Your task to perform on an android device: open wifi settings Image 0: 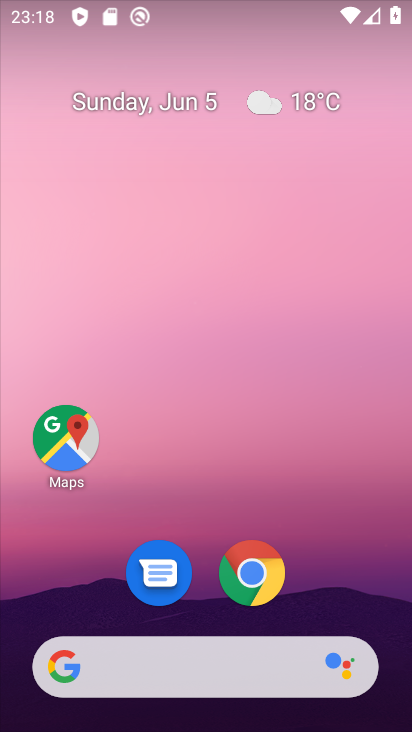
Step 0: drag from (212, 689) to (198, 252)
Your task to perform on an android device: open wifi settings Image 1: 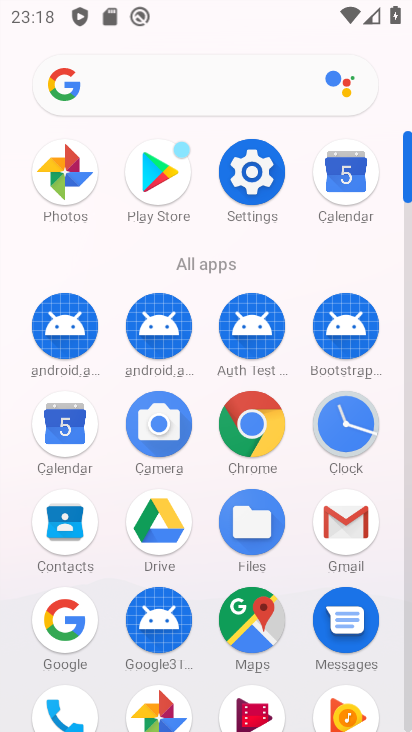
Step 1: click (264, 179)
Your task to perform on an android device: open wifi settings Image 2: 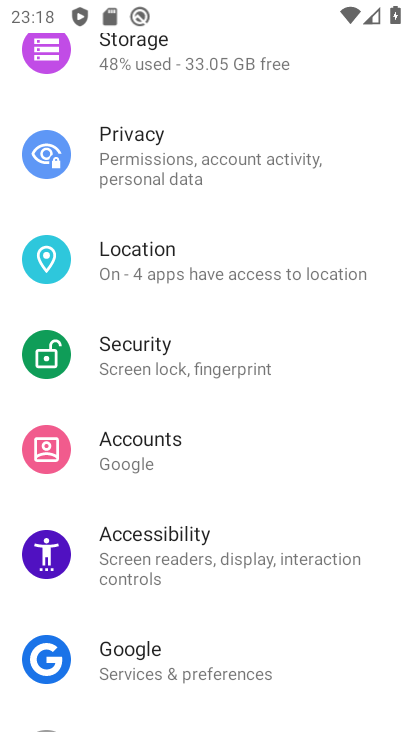
Step 2: drag from (136, 148) to (2, 346)
Your task to perform on an android device: open wifi settings Image 3: 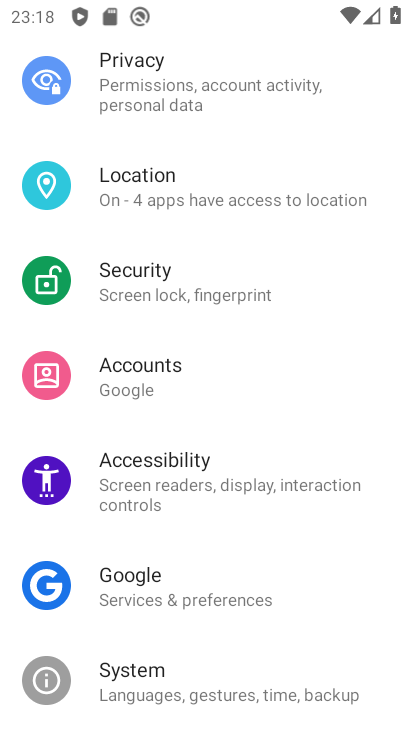
Step 3: drag from (137, 234) to (44, 610)
Your task to perform on an android device: open wifi settings Image 4: 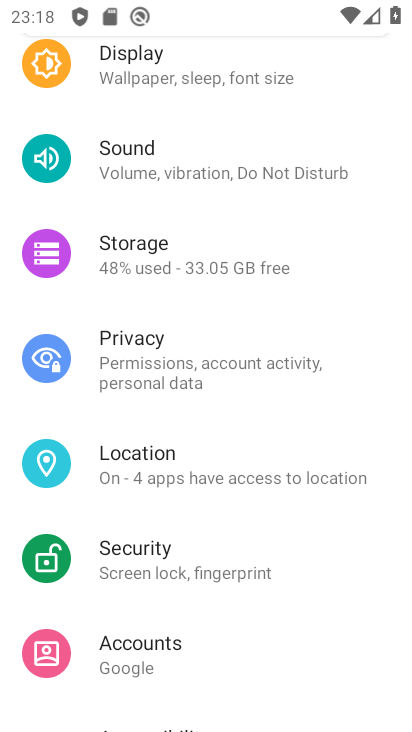
Step 4: drag from (172, 262) to (77, 718)
Your task to perform on an android device: open wifi settings Image 5: 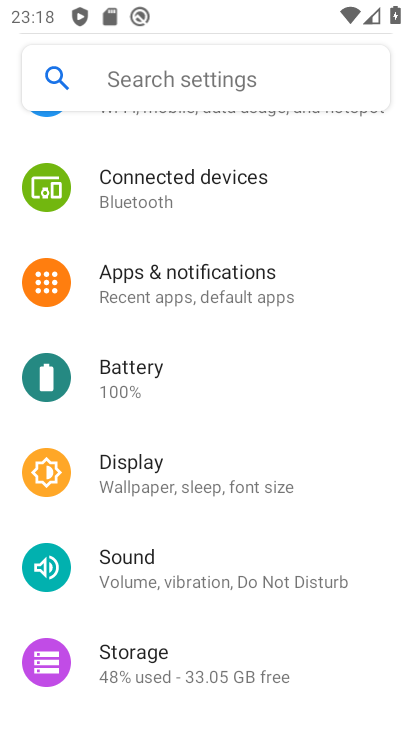
Step 5: drag from (194, 362) to (315, 704)
Your task to perform on an android device: open wifi settings Image 6: 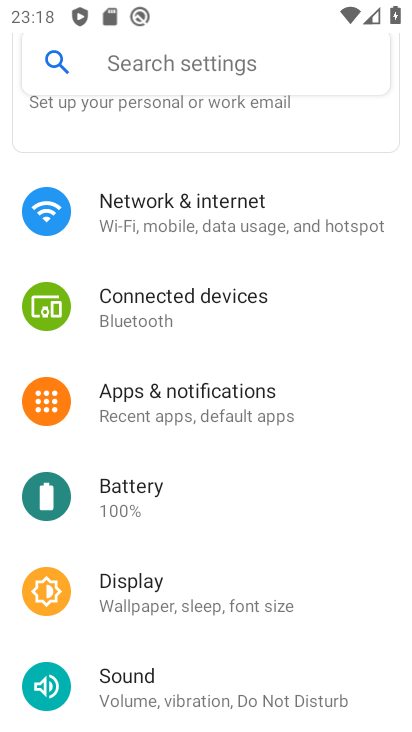
Step 6: click (160, 239)
Your task to perform on an android device: open wifi settings Image 7: 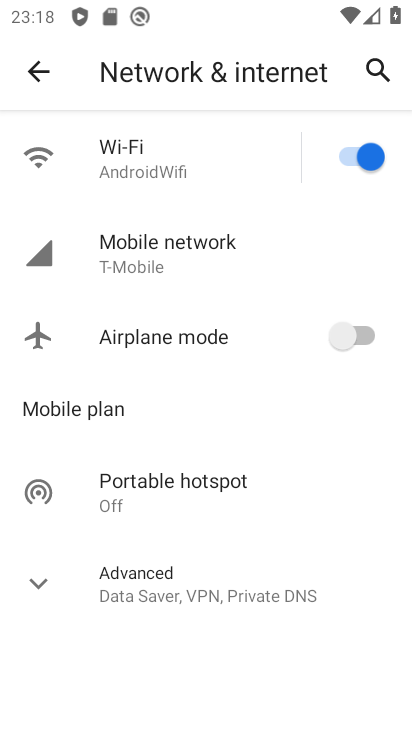
Step 7: click (125, 159)
Your task to perform on an android device: open wifi settings Image 8: 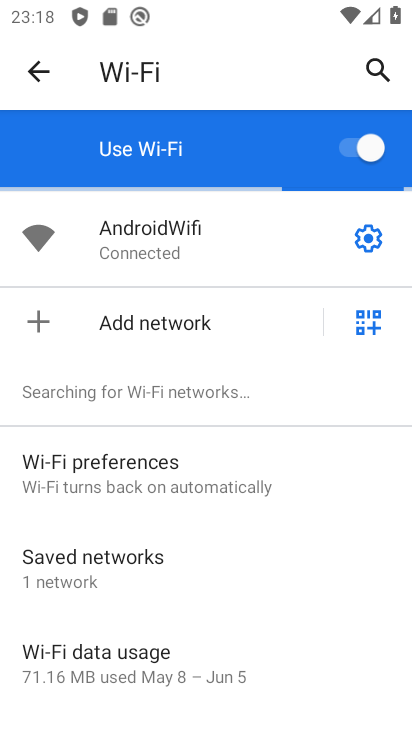
Step 8: task complete